Your task to perform on an android device: Open battery settings Image 0: 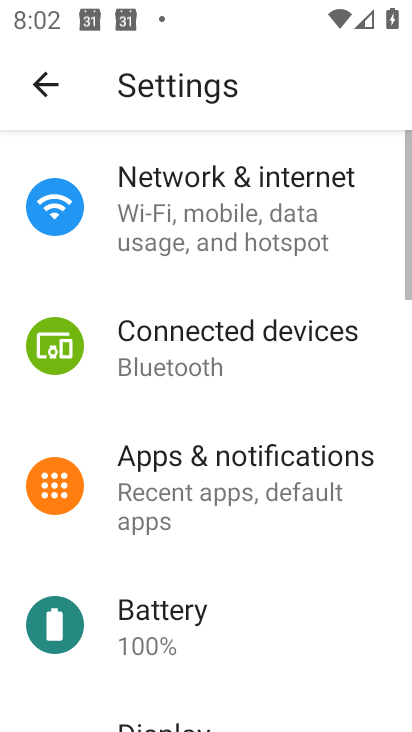
Step 0: click (151, 629)
Your task to perform on an android device: Open battery settings Image 1: 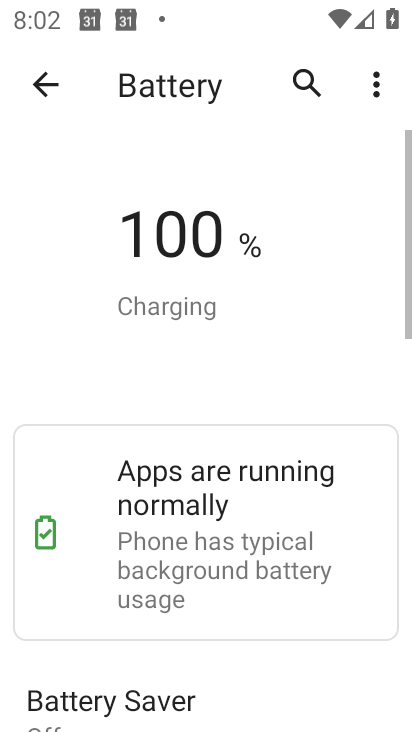
Step 1: task complete